Your task to perform on an android device: Open privacy settings Image 0: 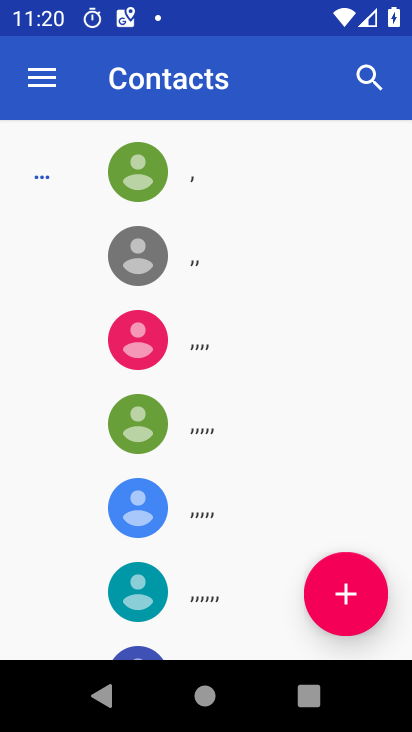
Step 0: press home button
Your task to perform on an android device: Open privacy settings Image 1: 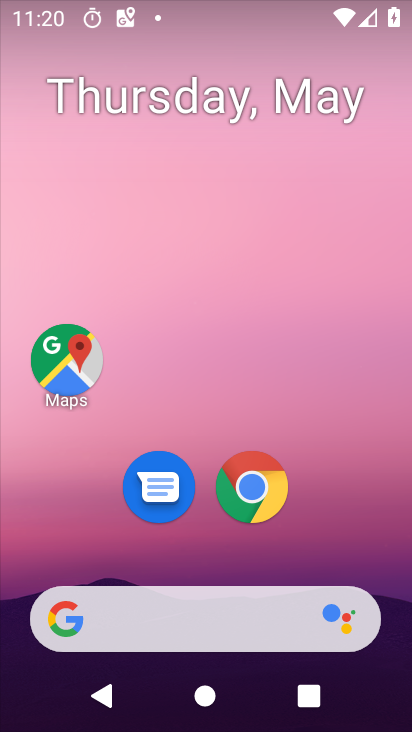
Step 1: drag from (284, 547) to (292, 20)
Your task to perform on an android device: Open privacy settings Image 2: 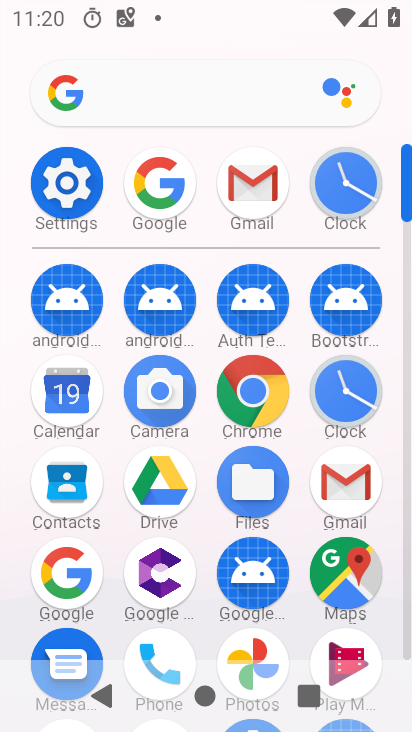
Step 2: click (57, 192)
Your task to perform on an android device: Open privacy settings Image 3: 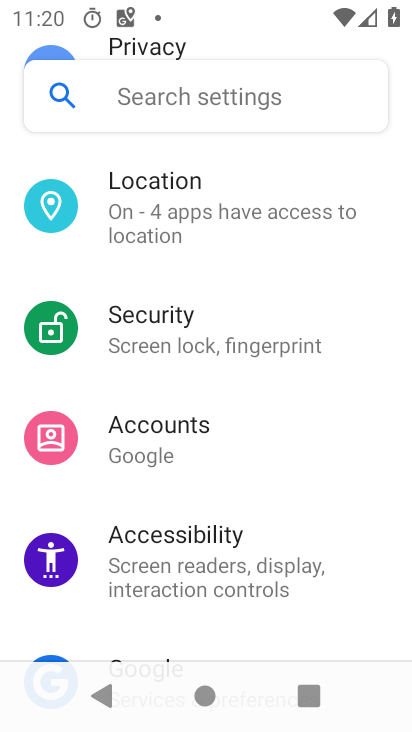
Step 3: drag from (300, 282) to (333, 592)
Your task to perform on an android device: Open privacy settings Image 4: 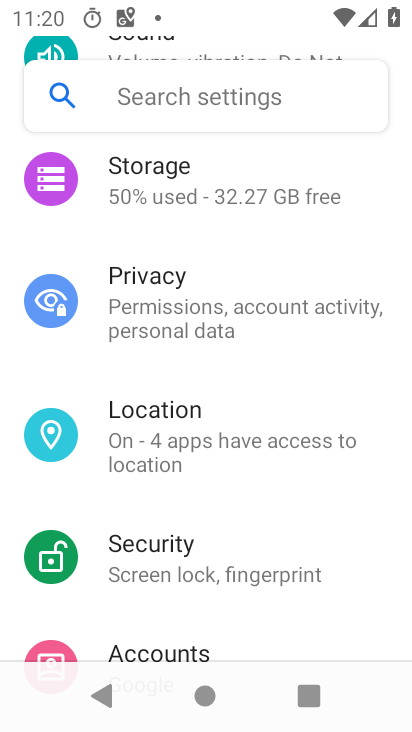
Step 4: click (230, 307)
Your task to perform on an android device: Open privacy settings Image 5: 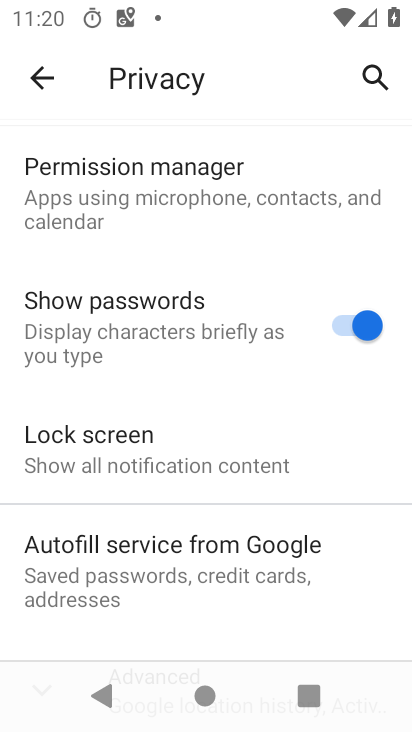
Step 5: task complete